Your task to perform on an android device: delete a single message in the gmail app Image 0: 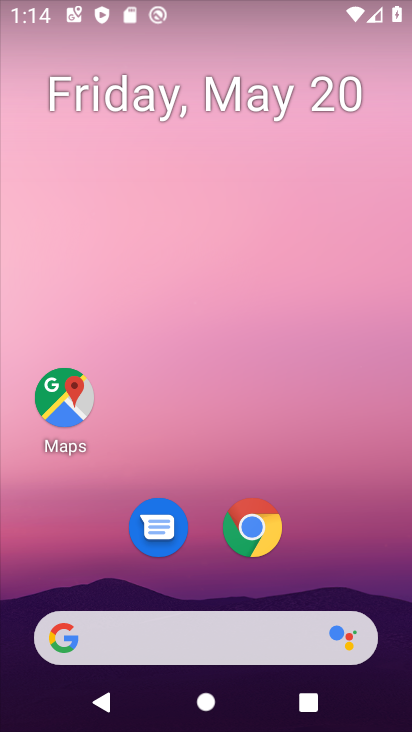
Step 0: press home button
Your task to perform on an android device: delete a single message in the gmail app Image 1: 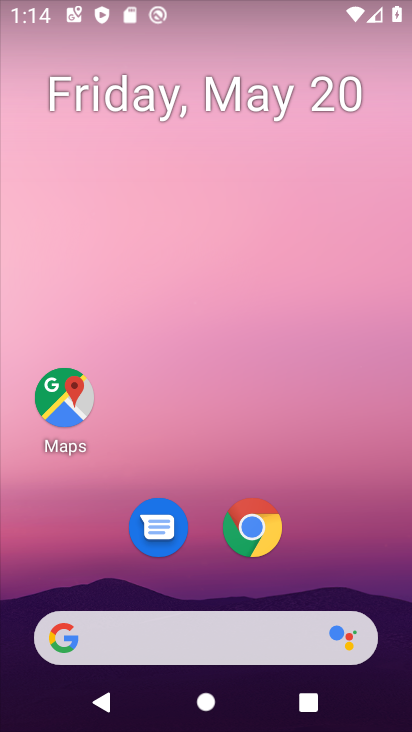
Step 1: drag from (129, 635) to (277, 214)
Your task to perform on an android device: delete a single message in the gmail app Image 2: 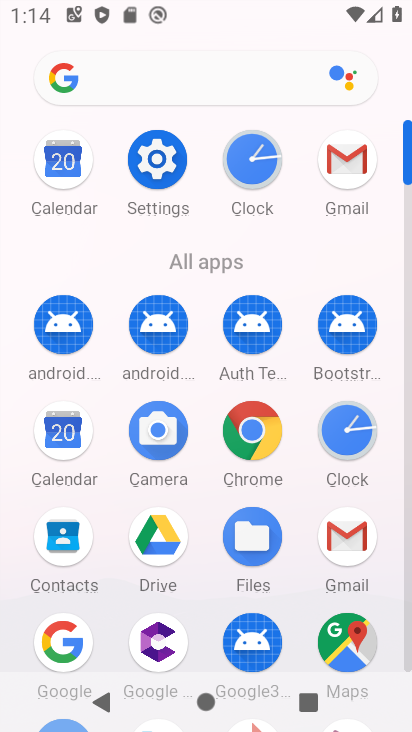
Step 2: click (351, 176)
Your task to perform on an android device: delete a single message in the gmail app Image 3: 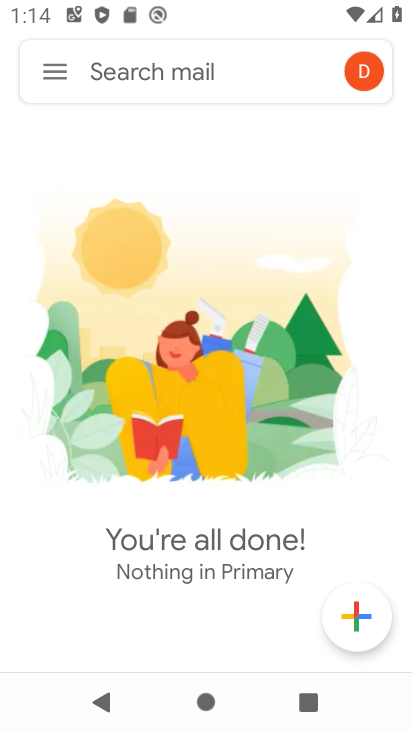
Step 3: task complete